Your task to perform on an android device: Open Amazon Image 0: 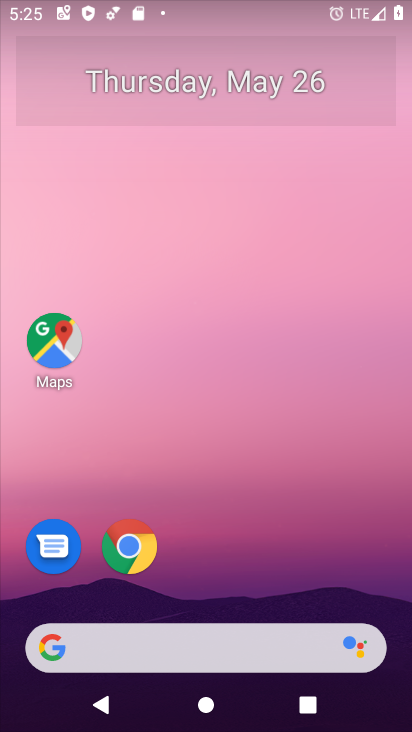
Step 0: click (116, 550)
Your task to perform on an android device: Open Amazon Image 1: 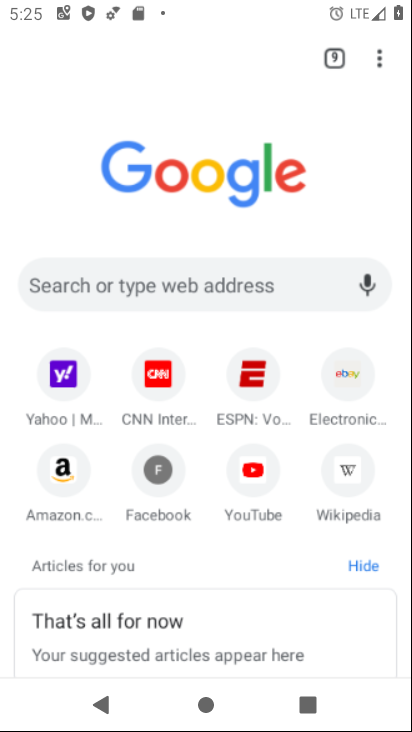
Step 1: click (88, 494)
Your task to perform on an android device: Open Amazon Image 2: 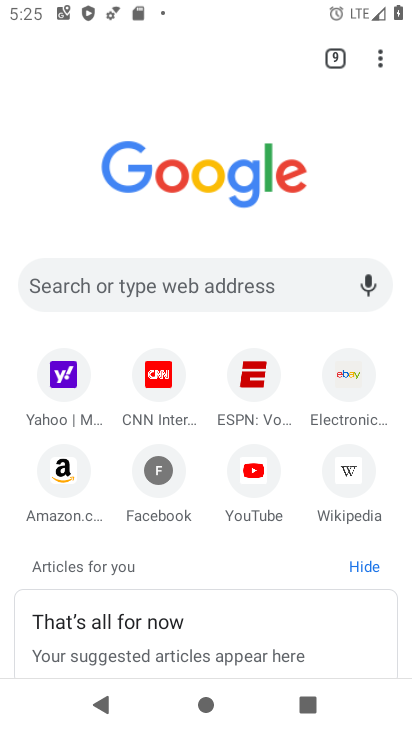
Step 2: click (67, 462)
Your task to perform on an android device: Open Amazon Image 3: 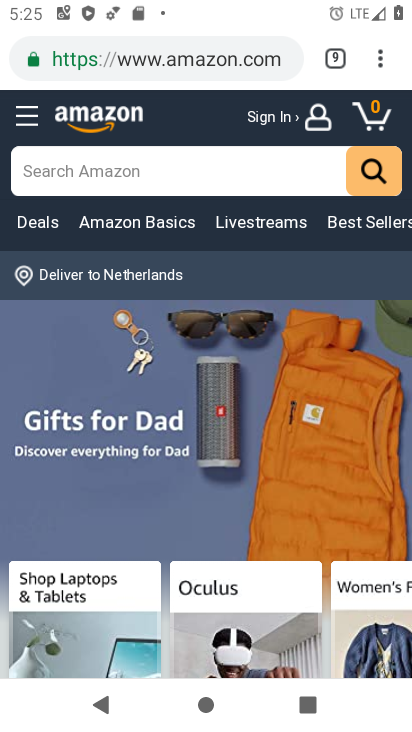
Step 3: task complete